Your task to perform on an android device: turn off picture-in-picture Image 0: 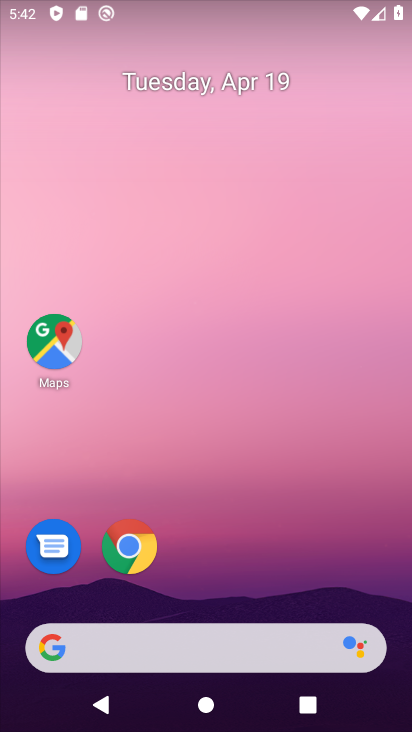
Step 0: click (126, 543)
Your task to perform on an android device: turn off picture-in-picture Image 1: 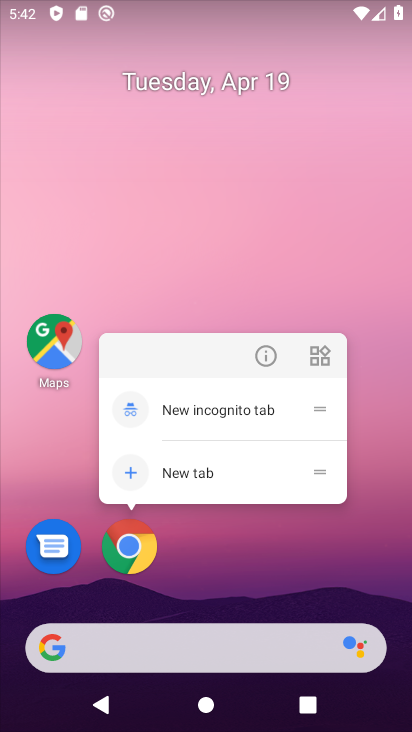
Step 1: click (269, 357)
Your task to perform on an android device: turn off picture-in-picture Image 2: 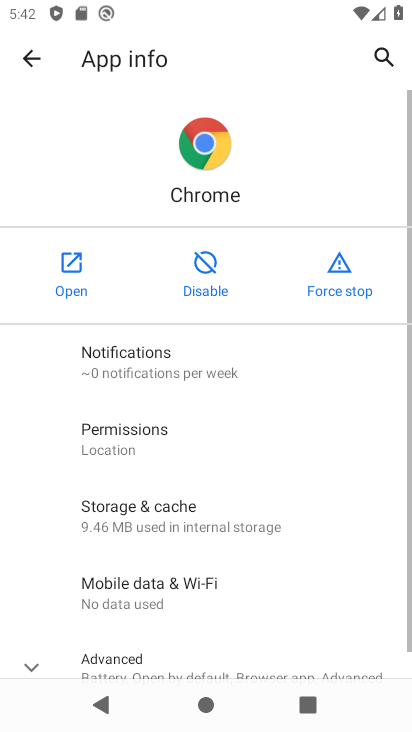
Step 2: drag from (265, 557) to (286, 139)
Your task to perform on an android device: turn off picture-in-picture Image 3: 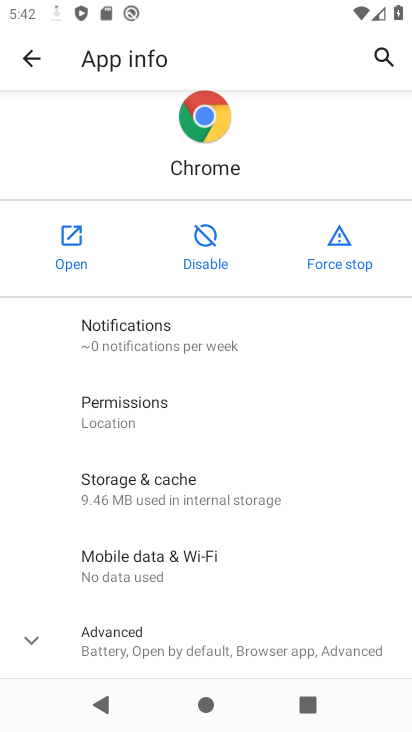
Step 3: drag from (234, 448) to (291, 163)
Your task to perform on an android device: turn off picture-in-picture Image 4: 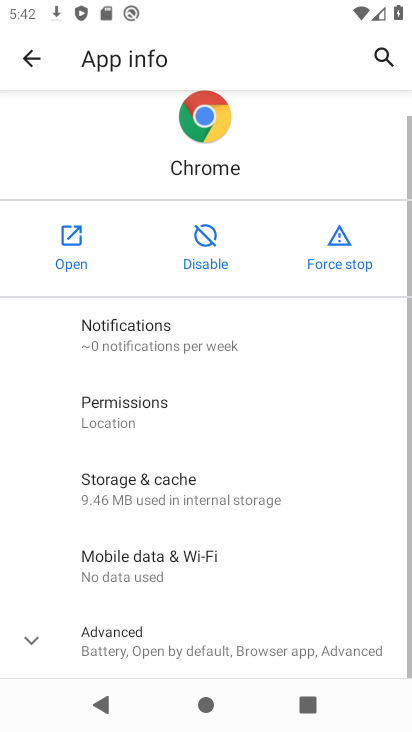
Step 4: drag from (236, 500) to (274, 142)
Your task to perform on an android device: turn off picture-in-picture Image 5: 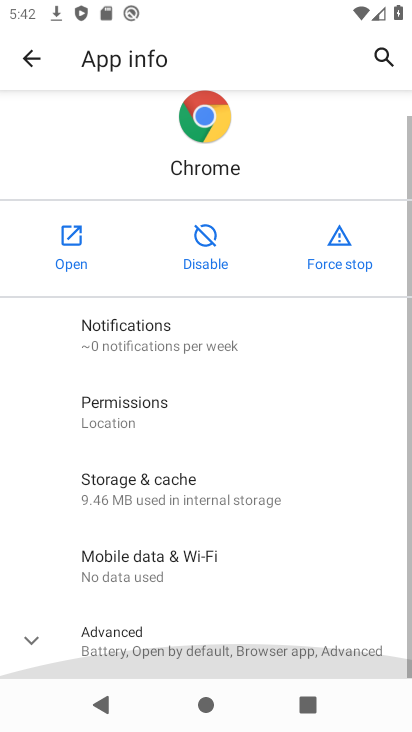
Step 5: click (129, 638)
Your task to perform on an android device: turn off picture-in-picture Image 6: 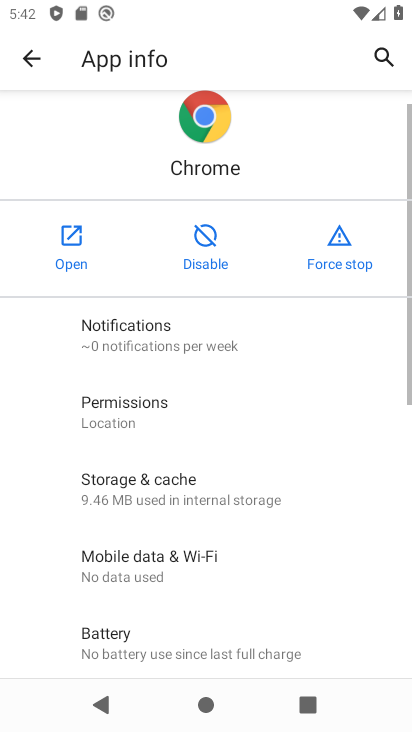
Step 6: drag from (376, 596) to (334, 229)
Your task to perform on an android device: turn off picture-in-picture Image 7: 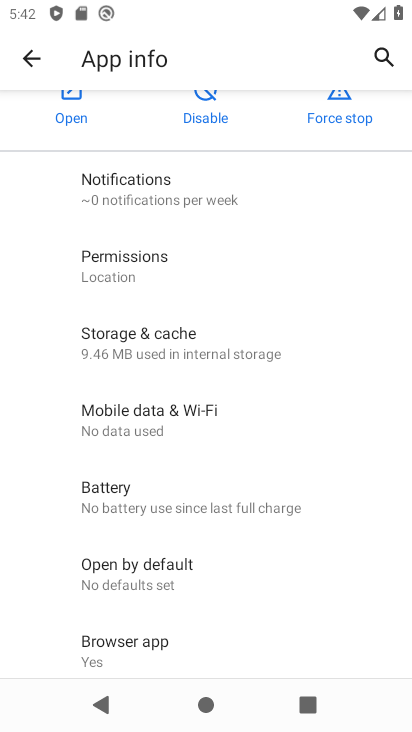
Step 7: drag from (257, 614) to (244, 154)
Your task to perform on an android device: turn off picture-in-picture Image 8: 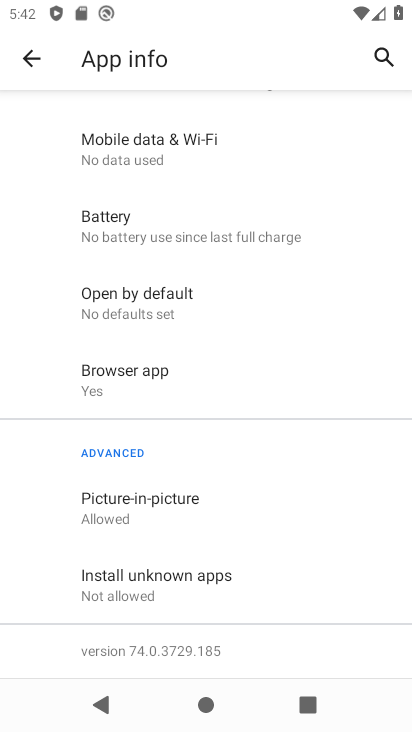
Step 8: click (166, 508)
Your task to perform on an android device: turn off picture-in-picture Image 9: 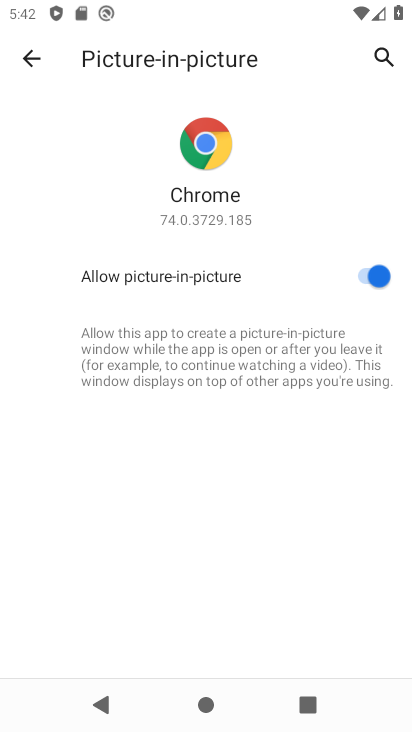
Step 9: click (365, 270)
Your task to perform on an android device: turn off picture-in-picture Image 10: 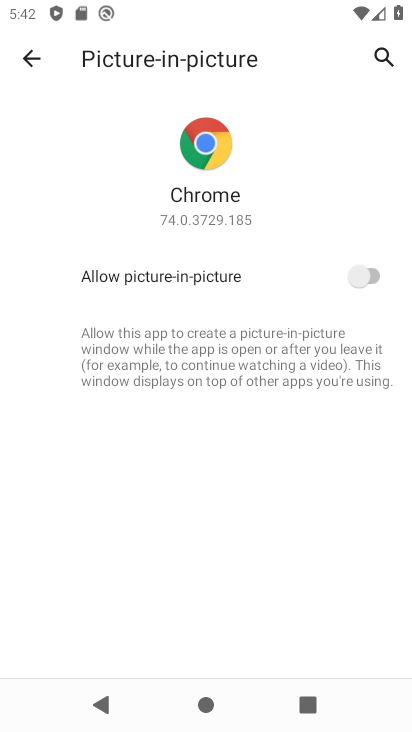
Step 10: task complete